Your task to perform on an android device: uninstall "Google Chat" Image 0: 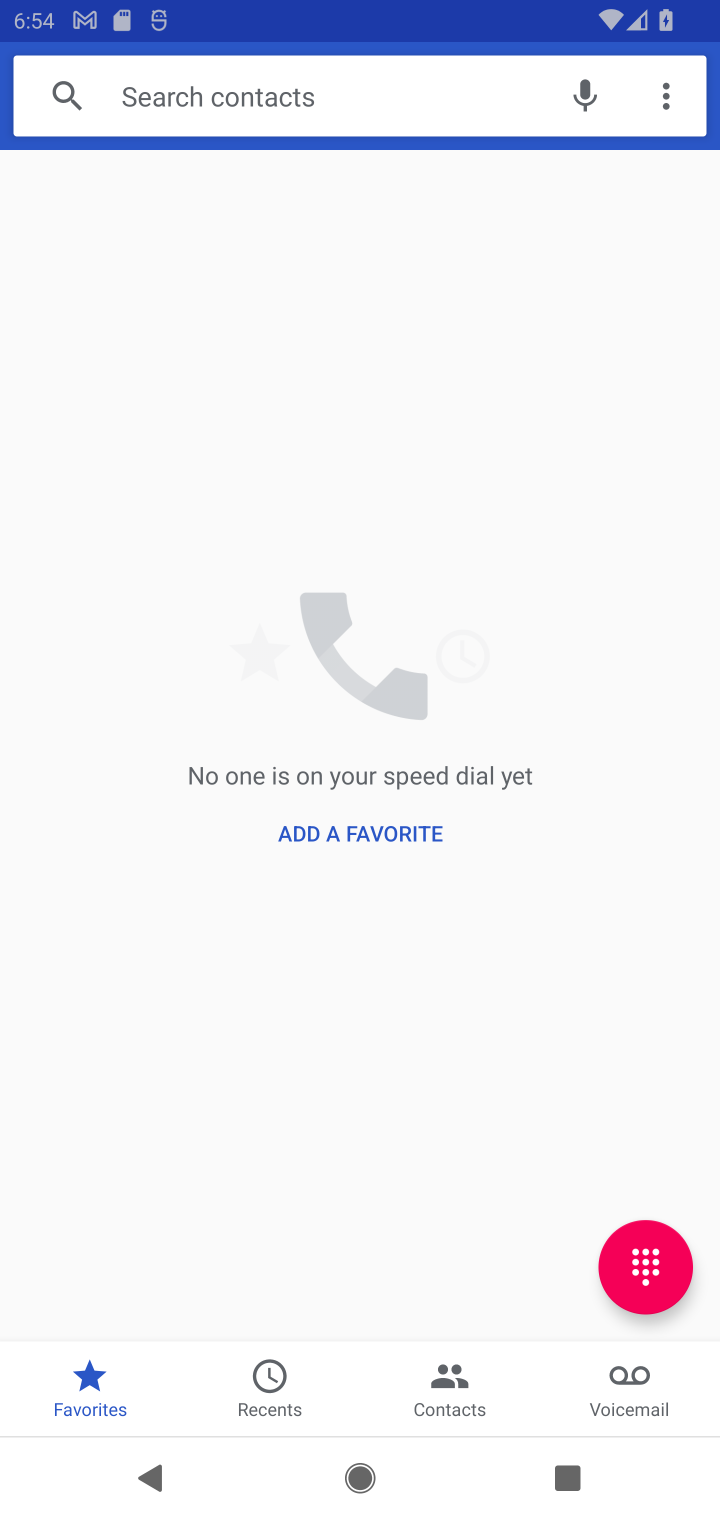
Step 0: press home button
Your task to perform on an android device: uninstall "Google Chat" Image 1: 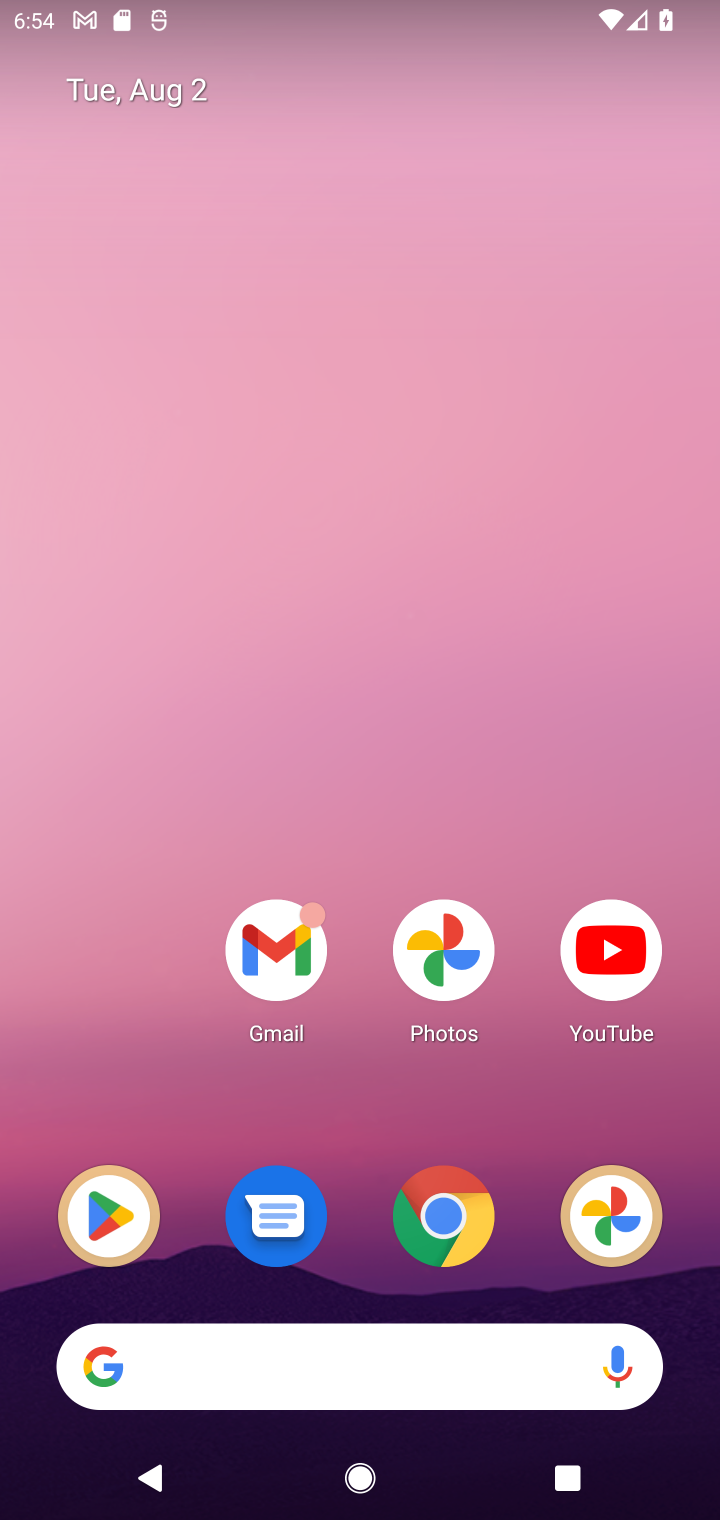
Step 1: click (94, 1220)
Your task to perform on an android device: uninstall "Google Chat" Image 2: 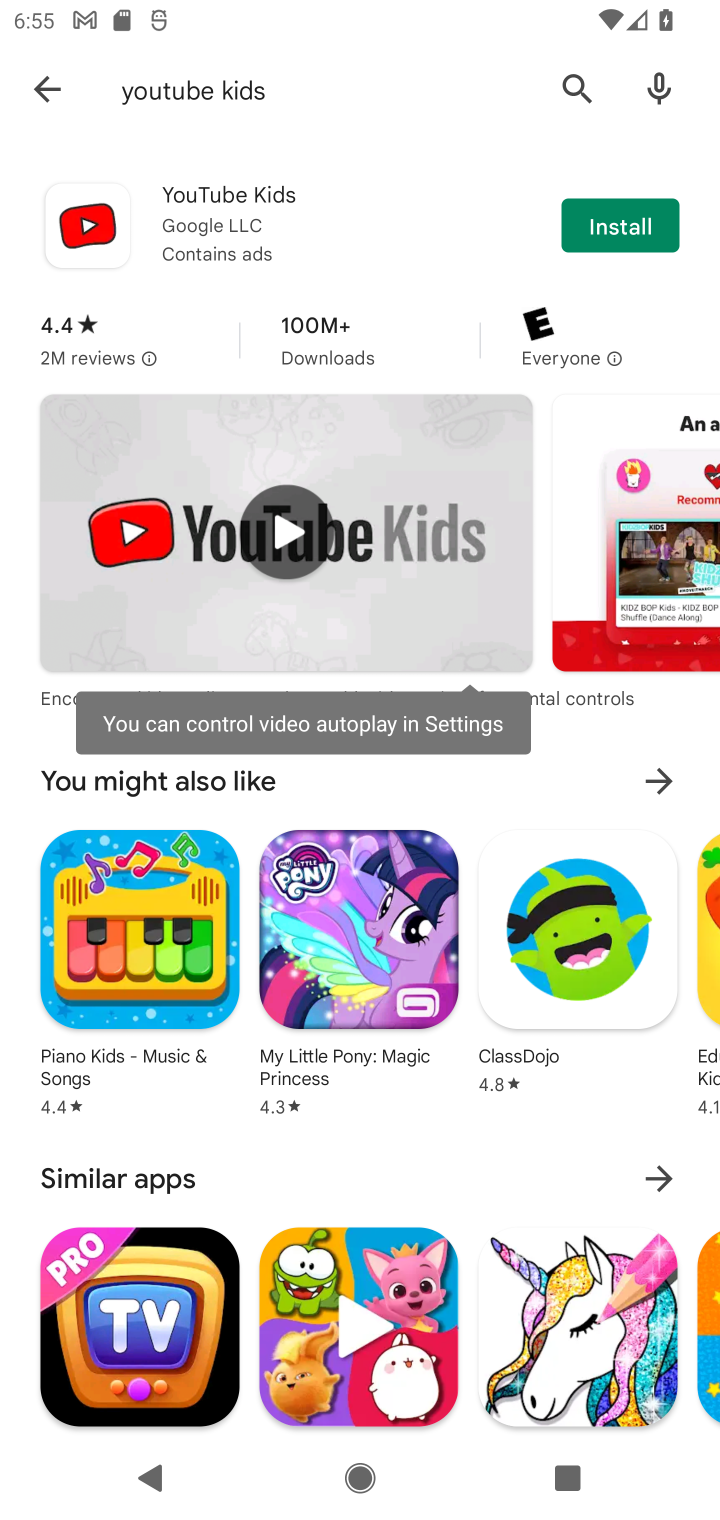
Step 2: click (574, 83)
Your task to perform on an android device: uninstall "Google Chat" Image 3: 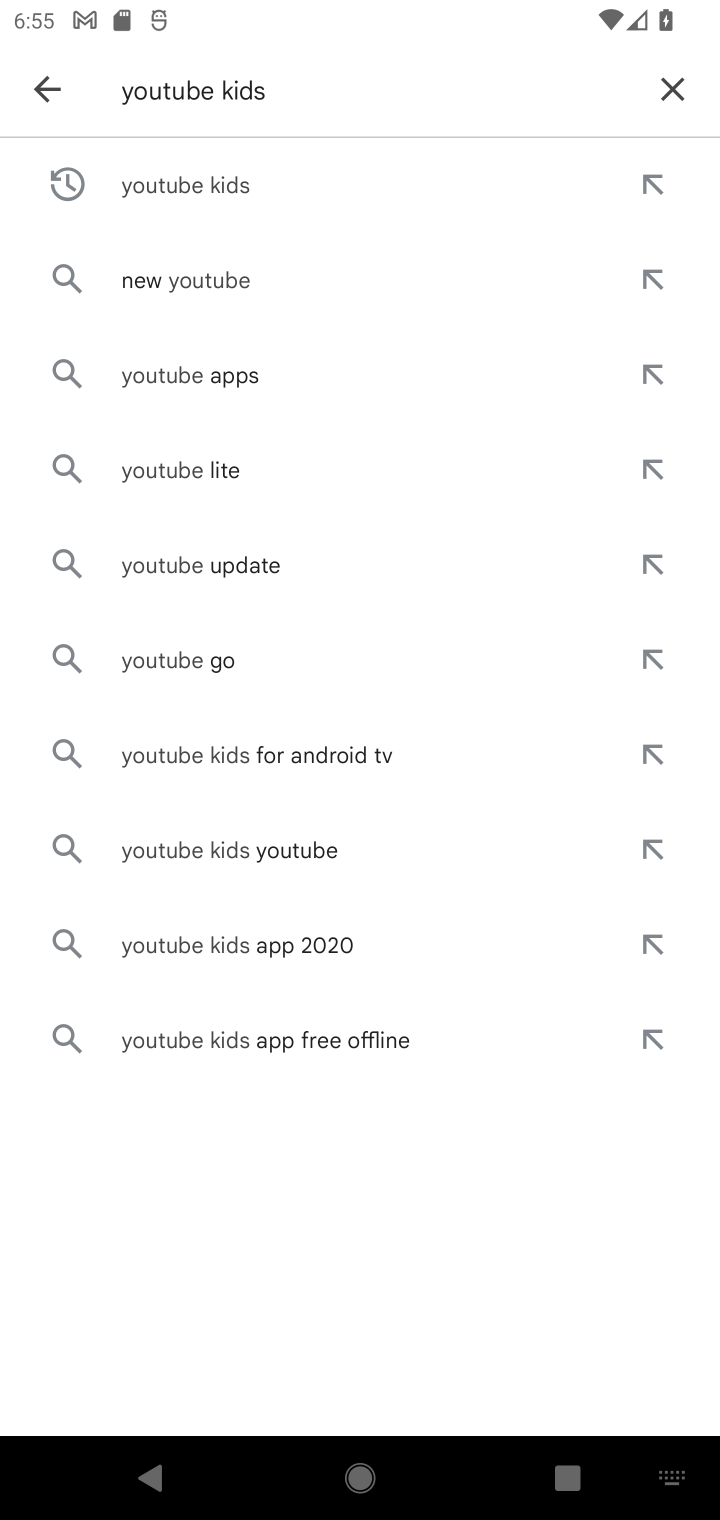
Step 3: click (673, 79)
Your task to perform on an android device: uninstall "Google Chat" Image 4: 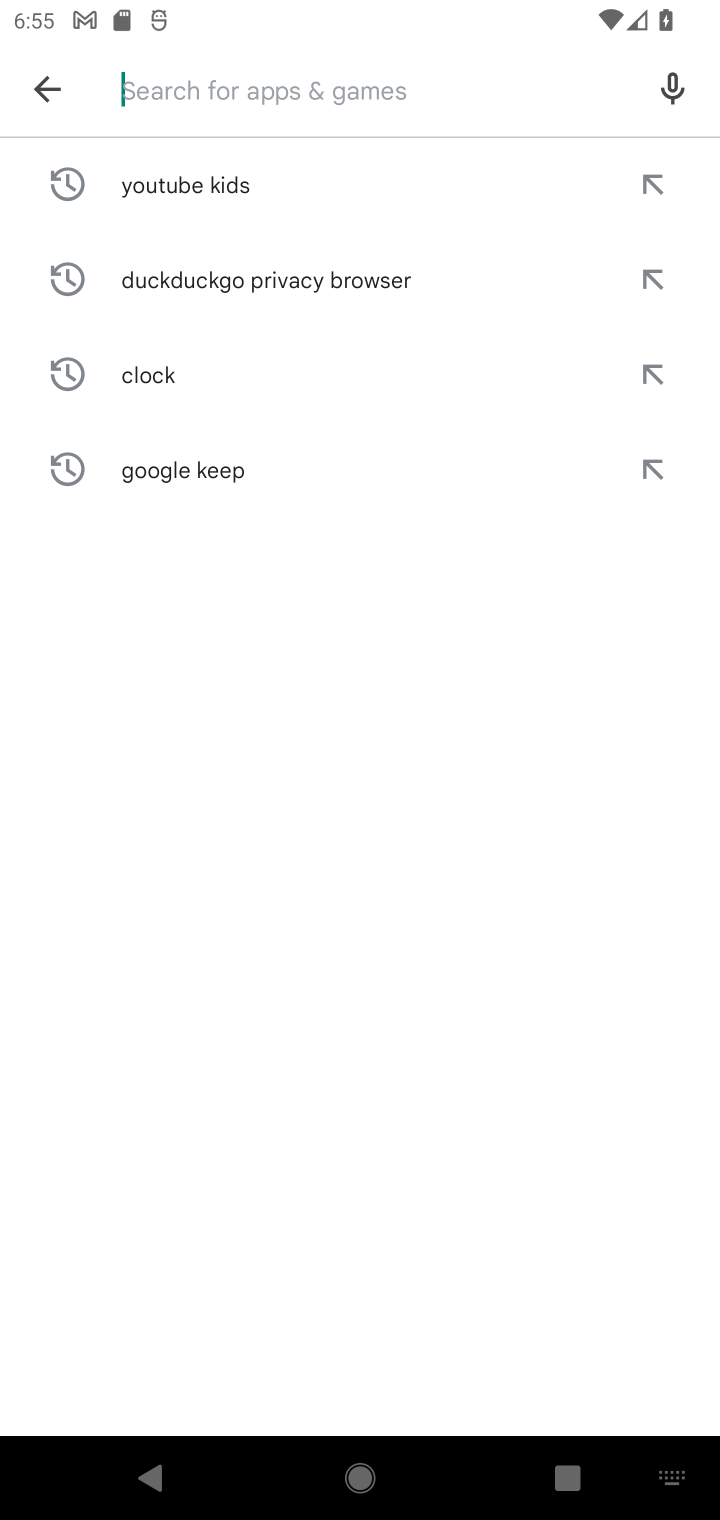
Step 4: type "Google Chat"
Your task to perform on an android device: uninstall "Google Chat" Image 5: 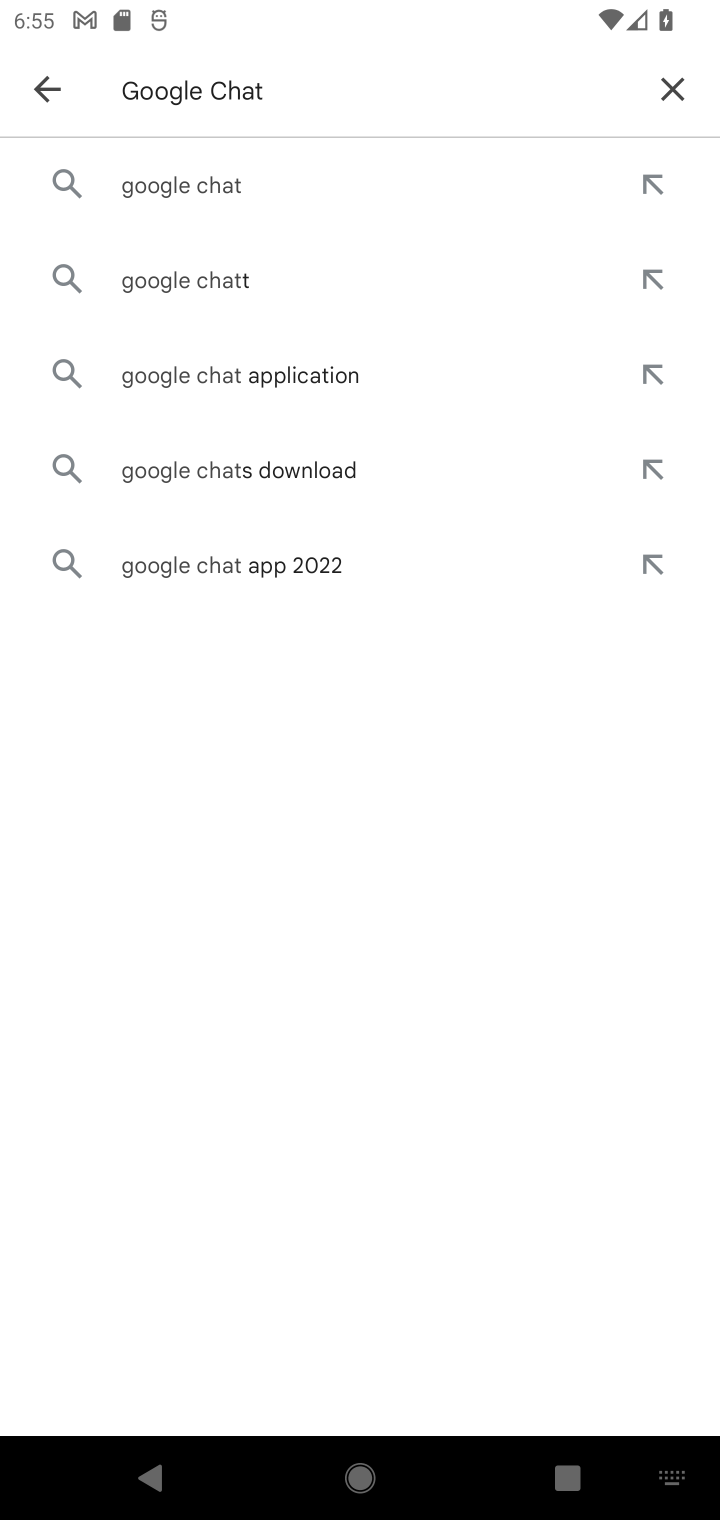
Step 5: click (225, 188)
Your task to perform on an android device: uninstall "Google Chat" Image 6: 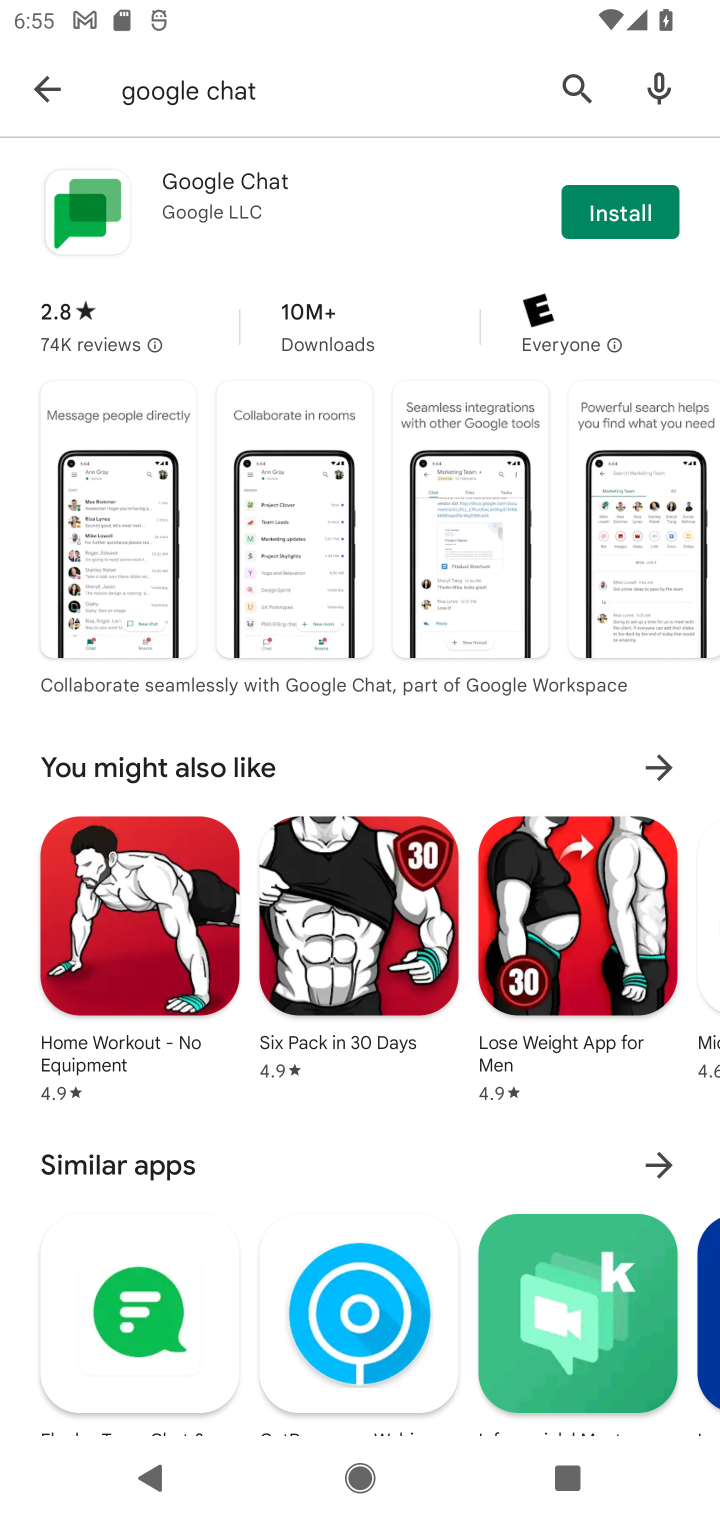
Step 6: task complete